Your task to perform on an android device: turn on notifications settings in the gmail app Image 0: 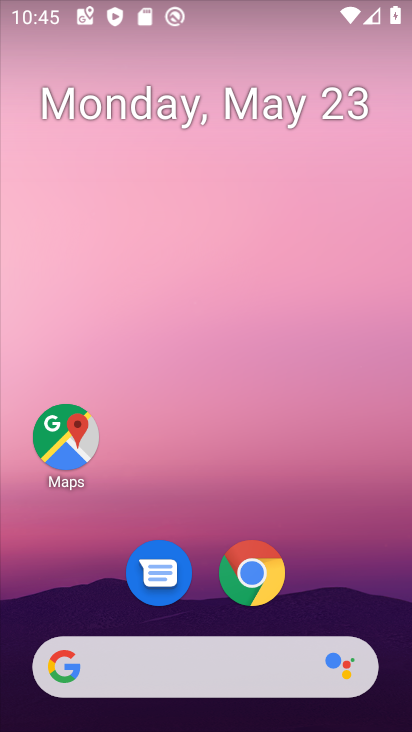
Step 0: drag from (287, 595) to (284, 114)
Your task to perform on an android device: turn on notifications settings in the gmail app Image 1: 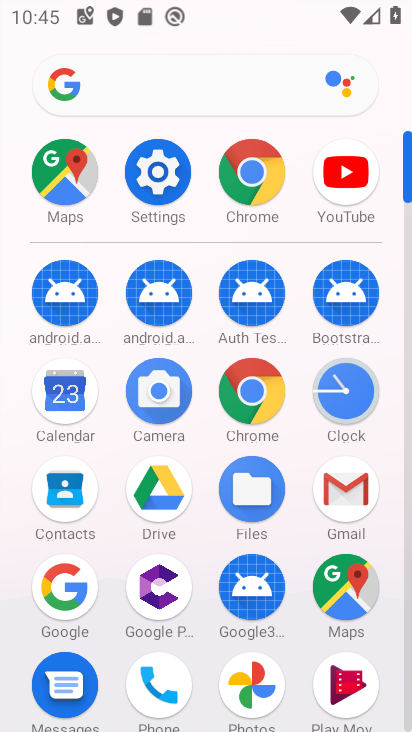
Step 1: click (350, 503)
Your task to perform on an android device: turn on notifications settings in the gmail app Image 2: 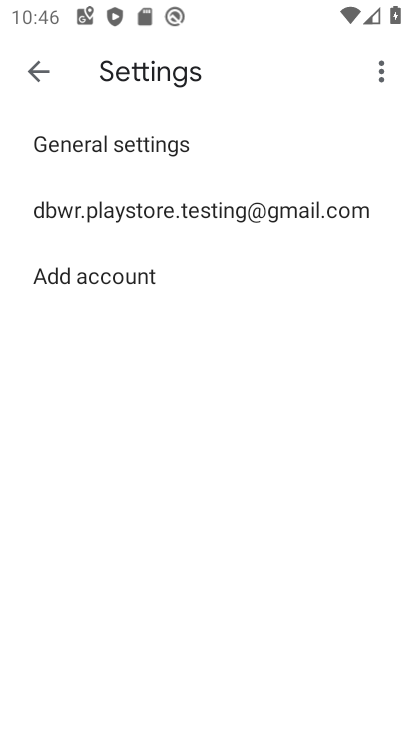
Step 2: click (169, 151)
Your task to perform on an android device: turn on notifications settings in the gmail app Image 3: 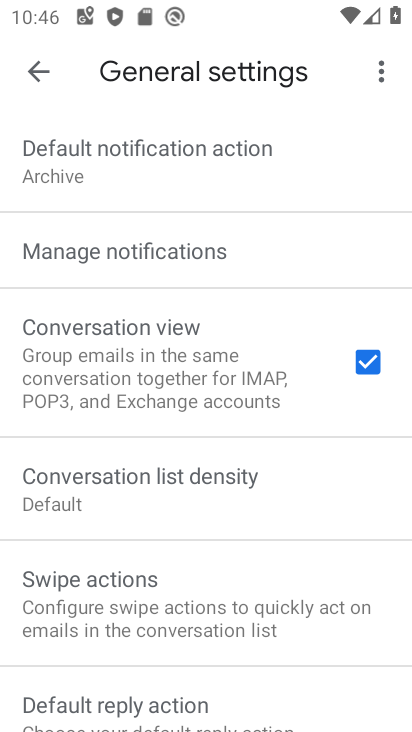
Step 3: click (179, 251)
Your task to perform on an android device: turn on notifications settings in the gmail app Image 4: 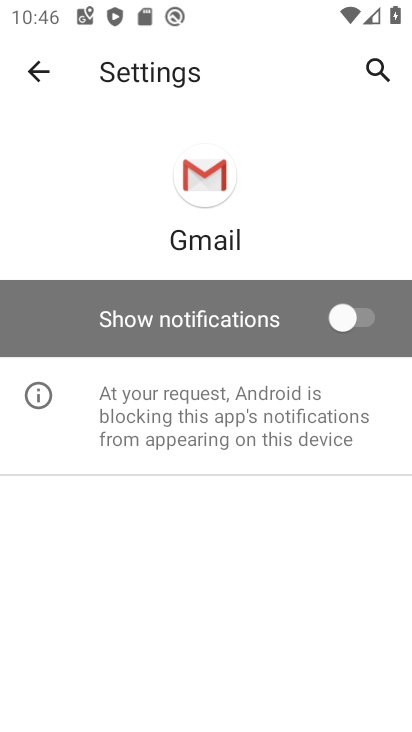
Step 4: click (351, 319)
Your task to perform on an android device: turn on notifications settings in the gmail app Image 5: 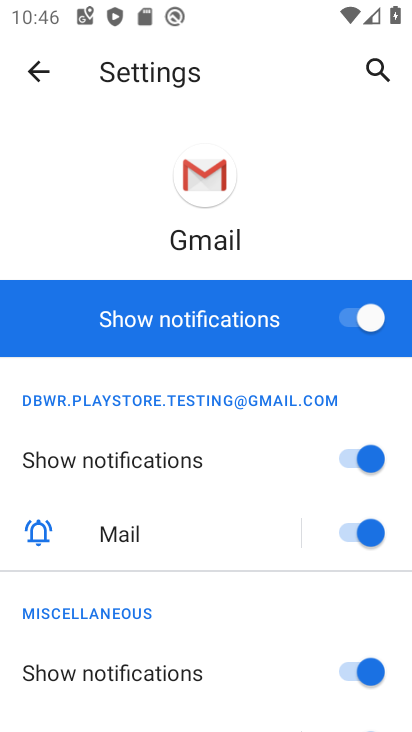
Step 5: task complete